Your task to perform on an android device: What's on my calendar tomorrow? Image 0: 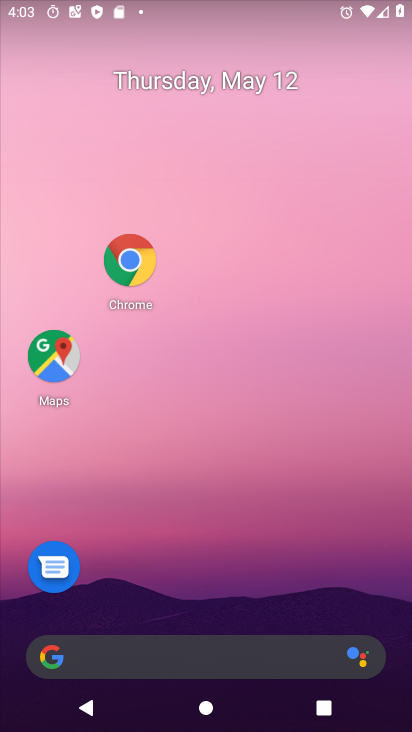
Step 0: drag from (232, 633) to (258, 194)
Your task to perform on an android device: What's on my calendar tomorrow? Image 1: 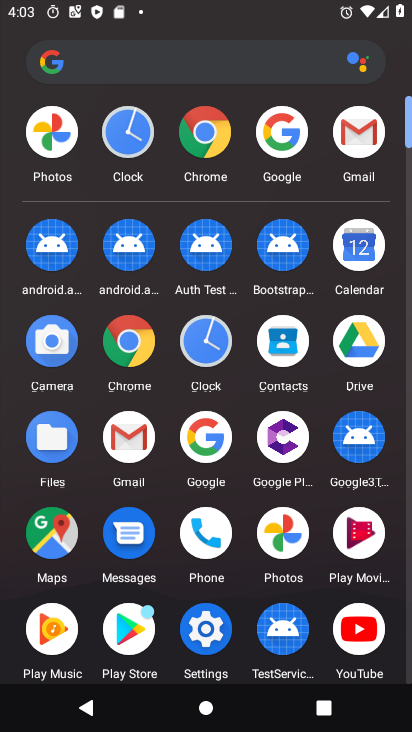
Step 1: click (355, 251)
Your task to perform on an android device: What's on my calendar tomorrow? Image 2: 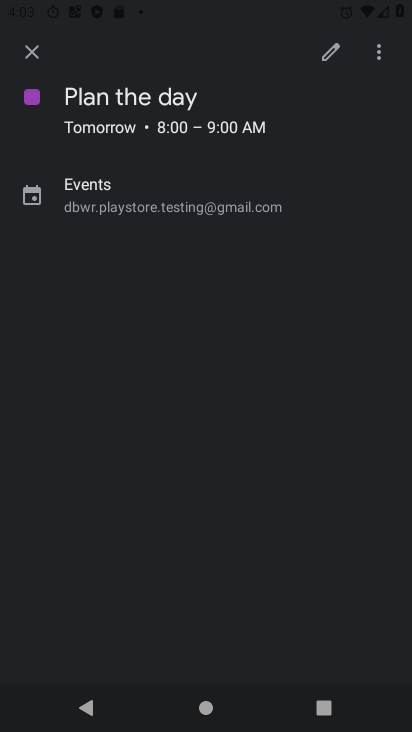
Step 2: click (35, 47)
Your task to perform on an android device: What's on my calendar tomorrow? Image 3: 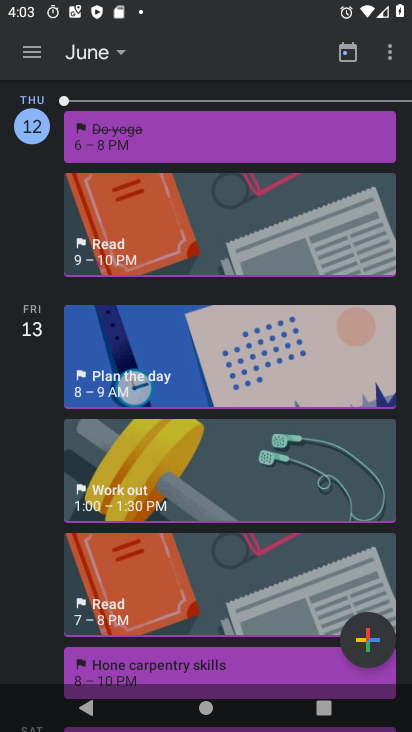
Step 3: click (106, 56)
Your task to perform on an android device: What's on my calendar tomorrow? Image 4: 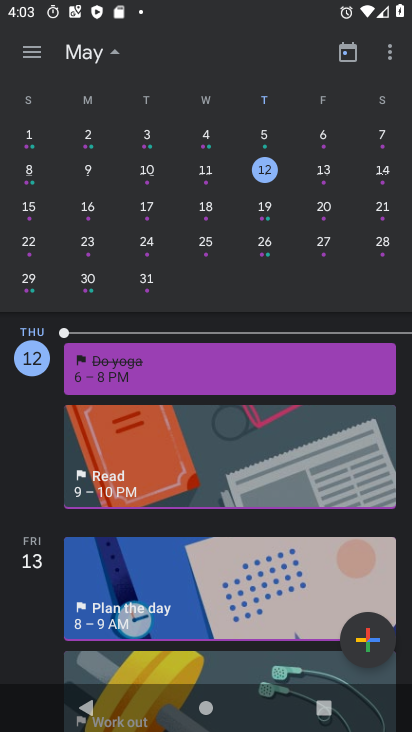
Step 4: click (327, 171)
Your task to perform on an android device: What's on my calendar tomorrow? Image 5: 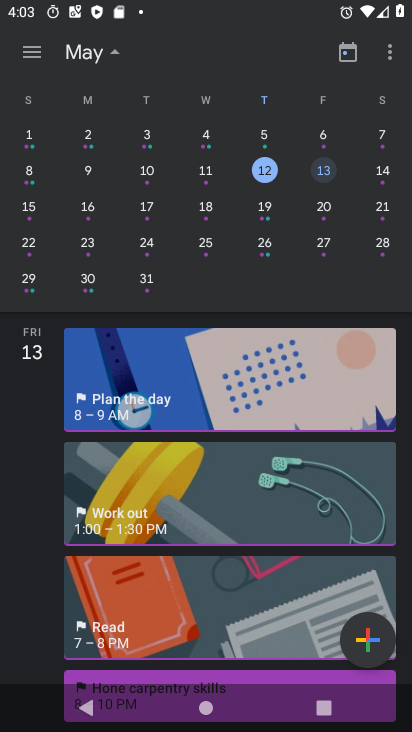
Step 5: task complete